Your task to perform on an android device: turn off priority inbox in the gmail app Image 0: 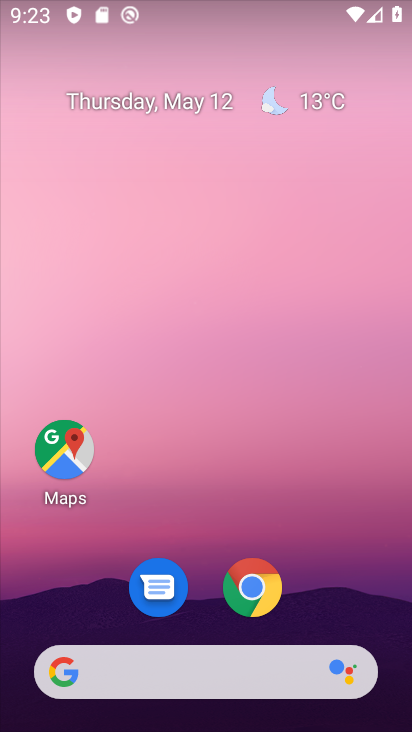
Step 0: drag from (330, 597) to (380, 50)
Your task to perform on an android device: turn off priority inbox in the gmail app Image 1: 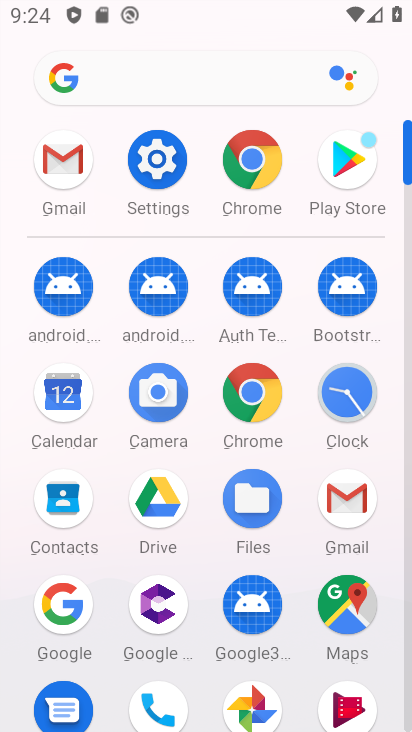
Step 1: click (358, 504)
Your task to perform on an android device: turn off priority inbox in the gmail app Image 2: 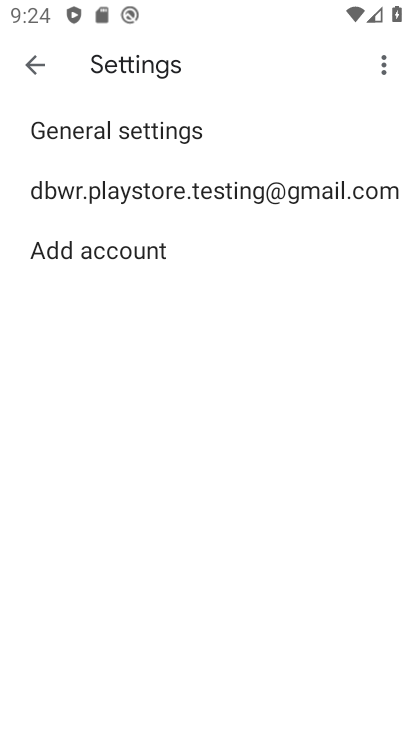
Step 2: click (19, 75)
Your task to perform on an android device: turn off priority inbox in the gmail app Image 3: 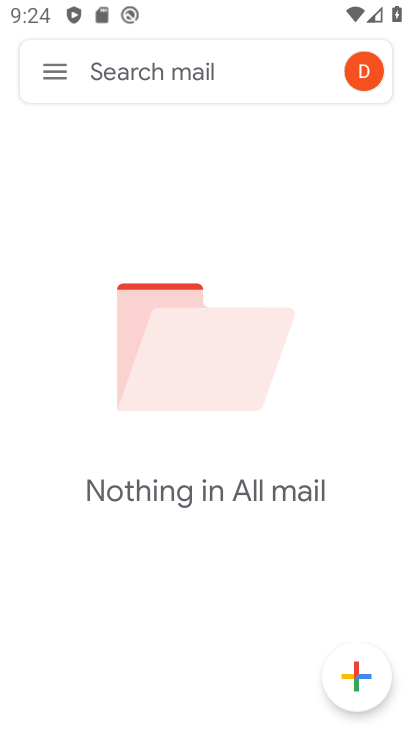
Step 3: click (56, 72)
Your task to perform on an android device: turn off priority inbox in the gmail app Image 4: 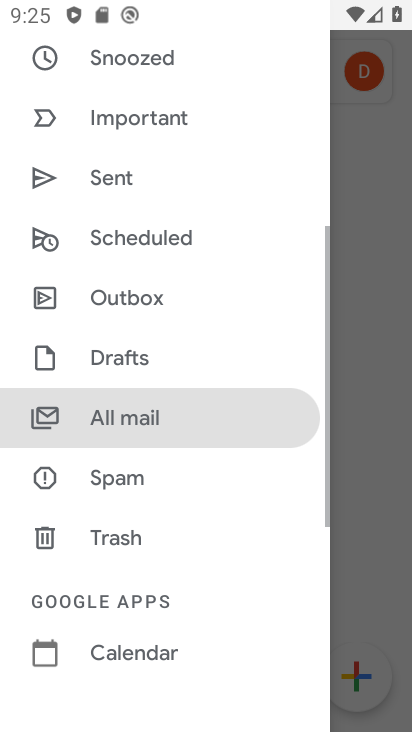
Step 4: drag from (144, 589) to (137, 273)
Your task to perform on an android device: turn off priority inbox in the gmail app Image 5: 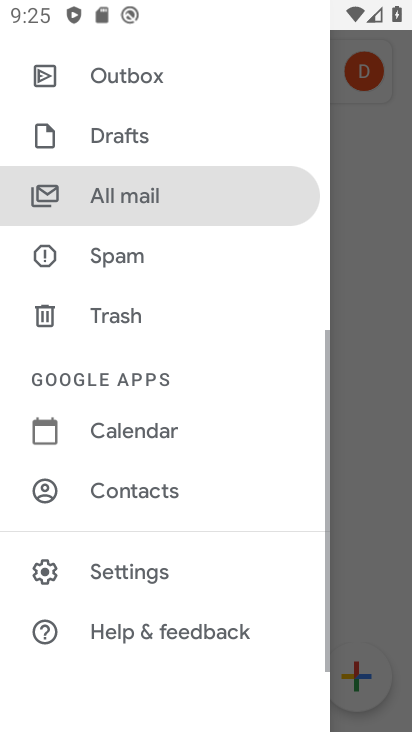
Step 5: click (110, 562)
Your task to perform on an android device: turn off priority inbox in the gmail app Image 6: 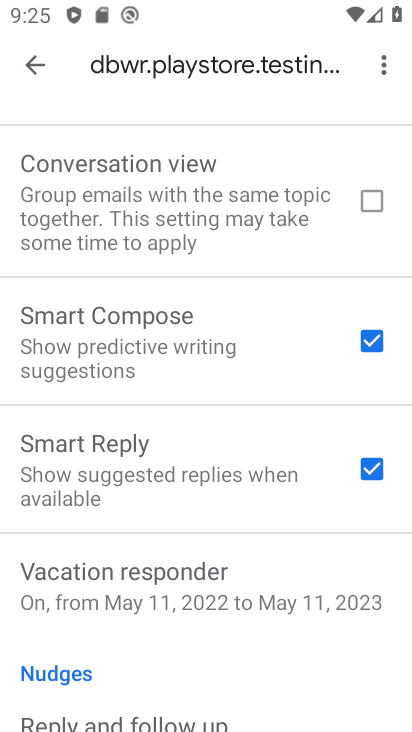
Step 6: drag from (194, 613) to (255, 121)
Your task to perform on an android device: turn off priority inbox in the gmail app Image 7: 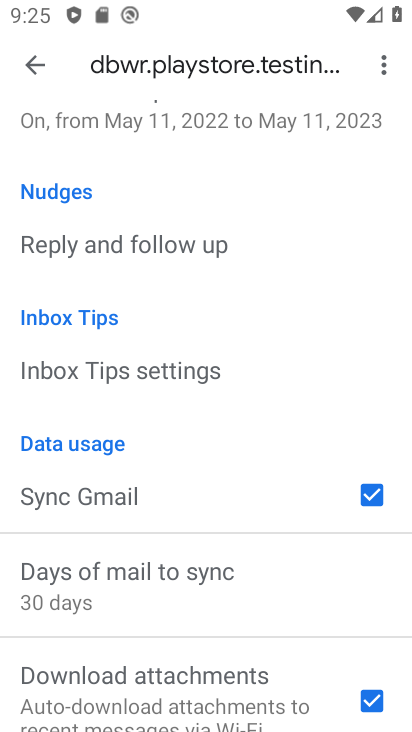
Step 7: drag from (139, 221) to (229, 629)
Your task to perform on an android device: turn off priority inbox in the gmail app Image 8: 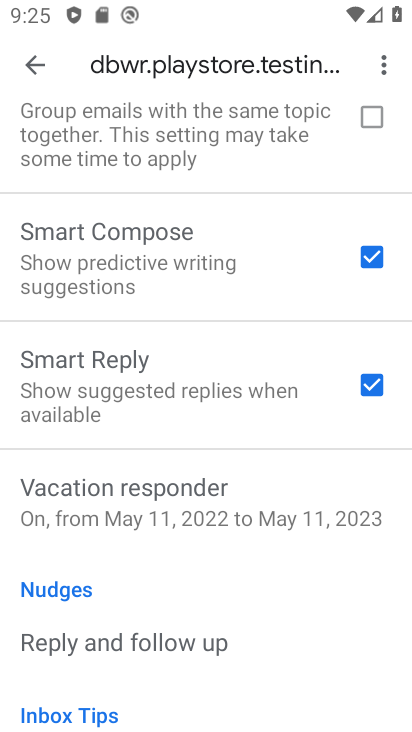
Step 8: drag from (190, 346) to (251, 601)
Your task to perform on an android device: turn off priority inbox in the gmail app Image 9: 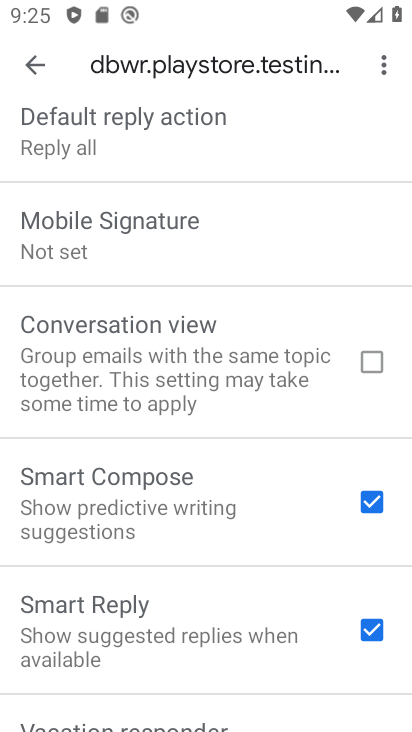
Step 9: drag from (183, 333) to (227, 651)
Your task to perform on an android device: turn off priority inbox in the gmail app Image 10: 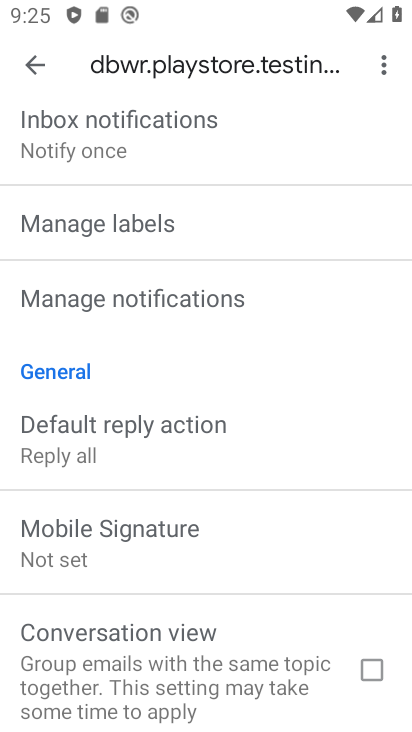
Step 10: drag from (170, 222) to (161, 656)
Your task to perform on an android device: turn off priority inbox in the gmail app Image 11: 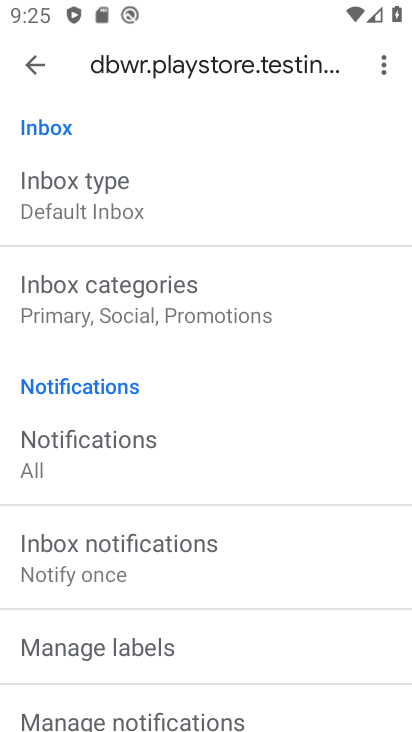
Step 11: click (90, 206)
Your task to perform on an android device: turn off priority inbox in the gmail app Image 12: 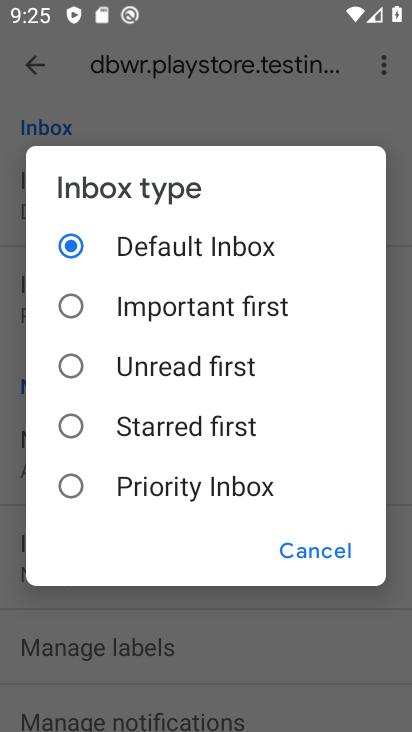
Step 12: task complete